Your task to perform on an android device: turn on data saver in the chrome app Image 0: 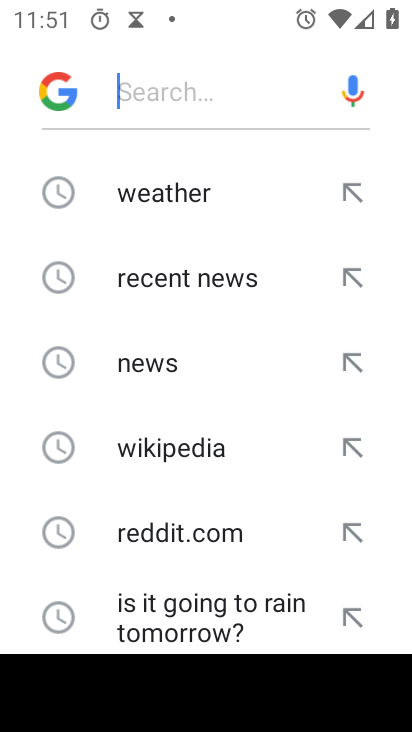
Step 0: press home button
Your task to perform on an android device: turn on data saver in the chrome app Image 1: 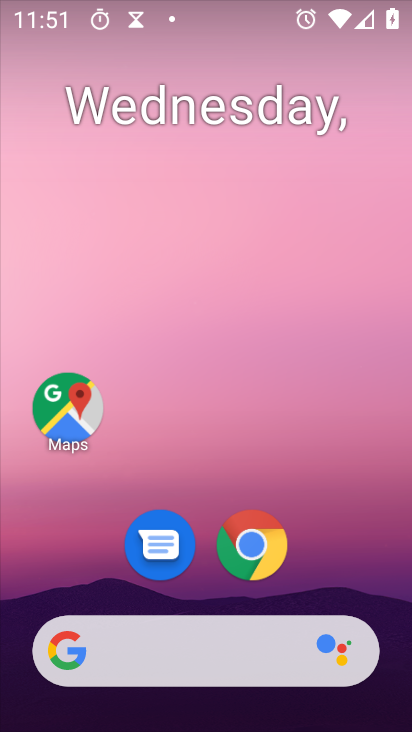
Step 1: click (255, 557)
Your task to perform on an android device: turn on data saver in the chrome app Image 2: 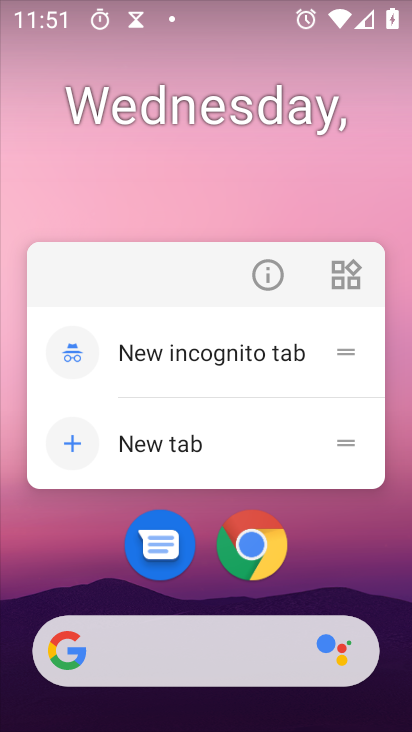
Step 2: click (242, 546)
Your task to perform on an android device: turn on data saver in the chrome app Image 3: 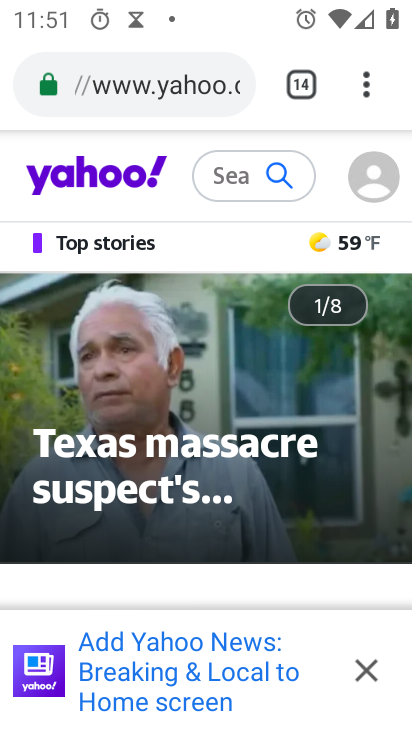
Step 3: drag from (367, 85) to (196, 594)
Your task to perform on an android device: turn on data saver in the chrome app Image 4: 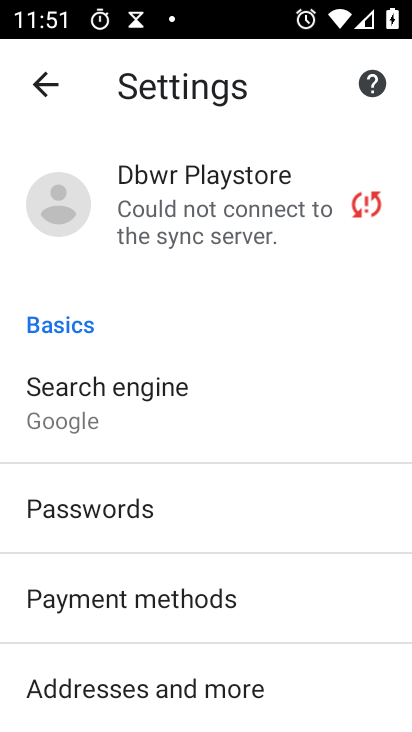
Step 4: drag from (197, 674) to (312, 164)
Your task to perform on an android device: turn on data saver in the chrome app Image 5: 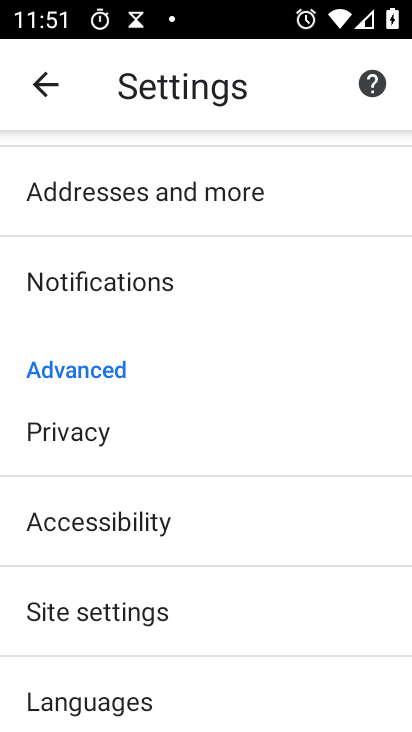
Step 5: drag from (110, 638) to (241, 388)
Your task to perform on an android device: turn on data saver in the chrome app Image 6: 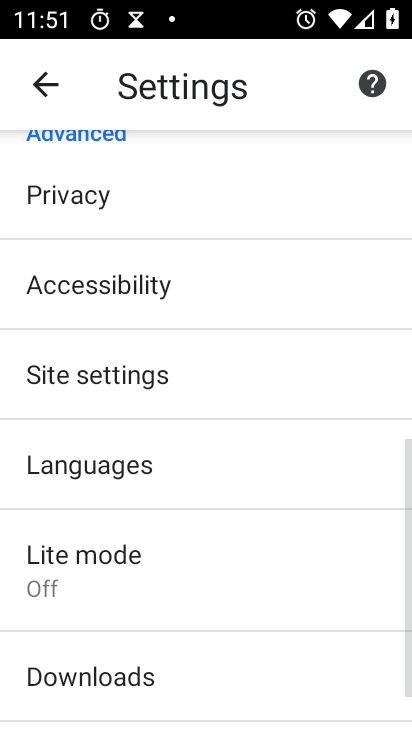
Step 6: click (100, 600)
Your task to perform on an android device: turn on data saver in the chrome app Image 7: 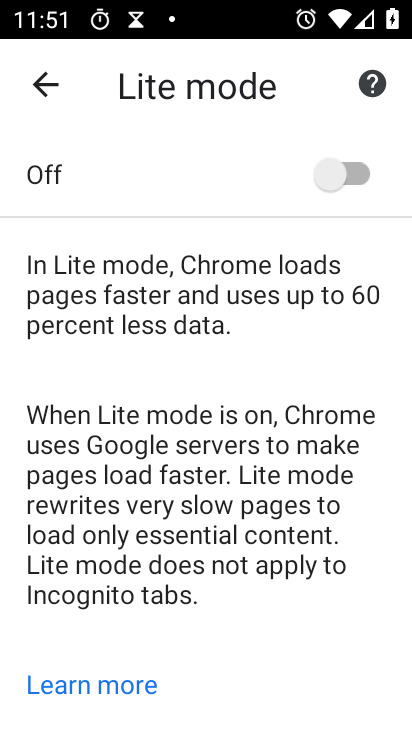
Step 7: click (357, 170)
Your task to perform on an android device: turn on data saver in the chrome app Image 8: 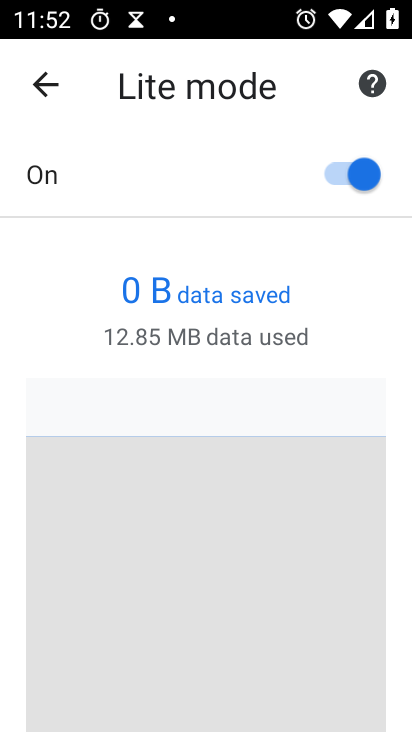
Step 8: task complete